Your task to perform on an android device: Open Maps and search for coffee Image 0: 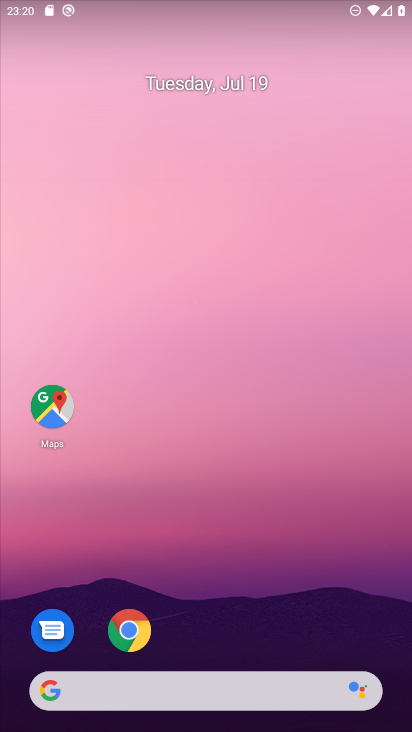
Step 0: click (49, 403)
Your task to perform on an android device: Open Maps and search for coffee Image 1: 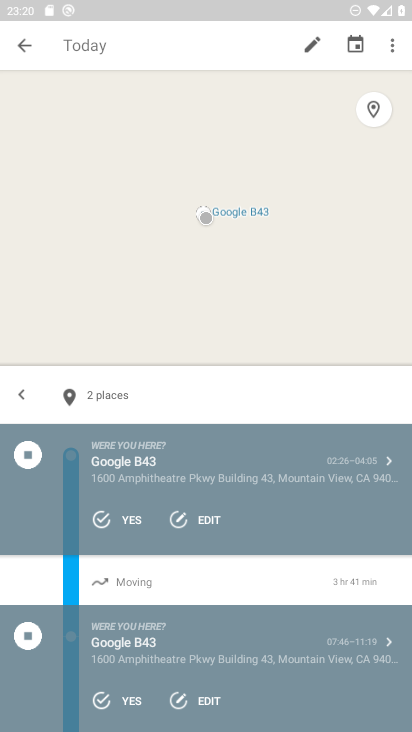
Step 1: click (19, 45)
Your task to perform on an android device: Open Maps and search for coffee Image 2: 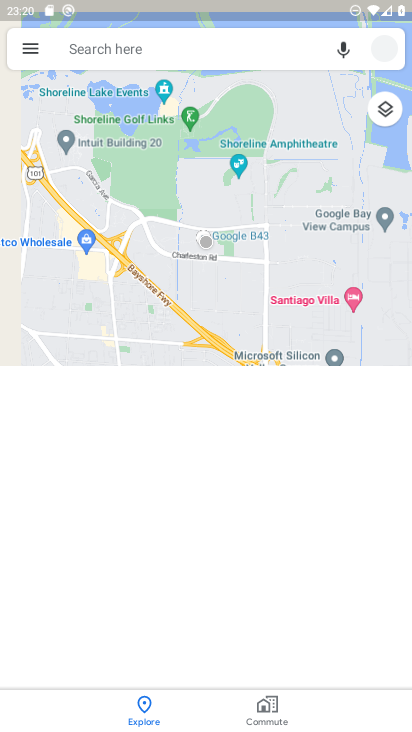
Step 2: click (191, 45)
Your task to perform on an android device: Open Maps and search for coffee Image 3: 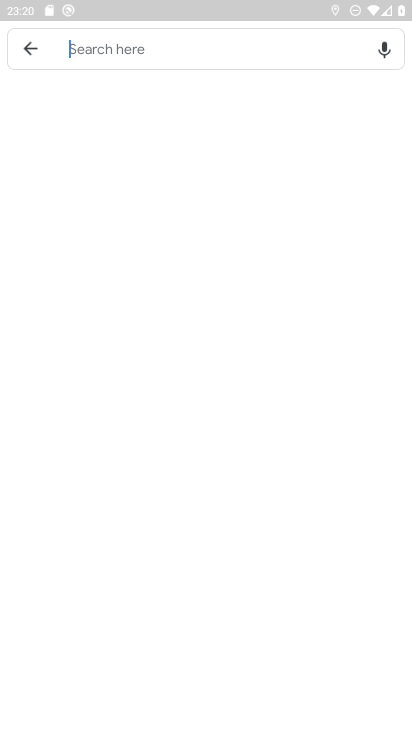
Step 3: click (167, 46)
Your task to perform on an android device: Open Maps and search for coffee Image 4: 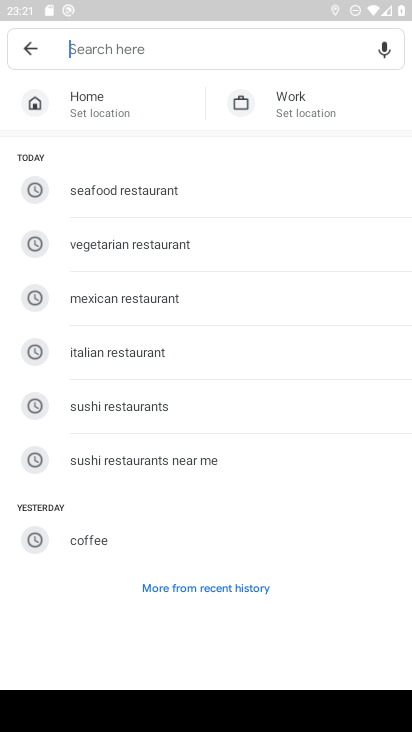
Step 4: type "coffee"
Your task to perform on an android device: Open Maps and search for coffee Image 5: 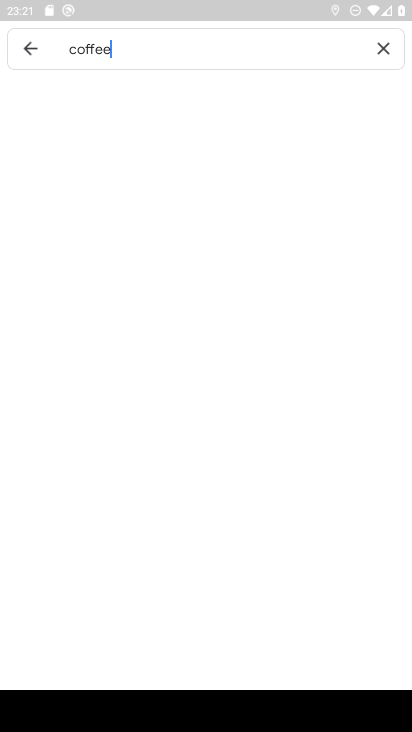
Step 5: type ""
Your task to perform on an android device: Open Maps and search for coffee Image 6: 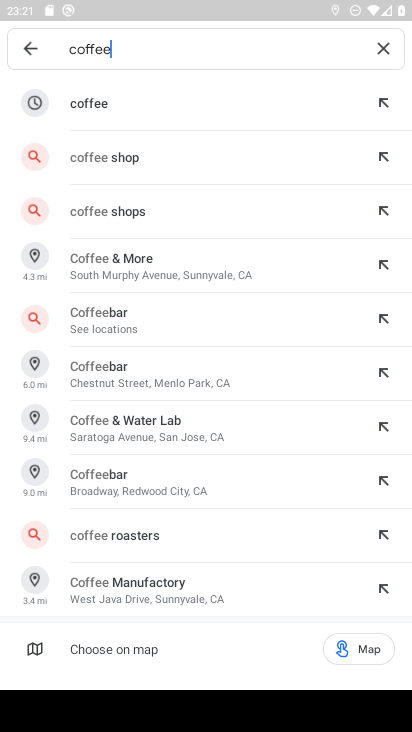
Step 6: click (120, 106)
Your task to perform on an android device: Open Maps and search for coffee Image 7: 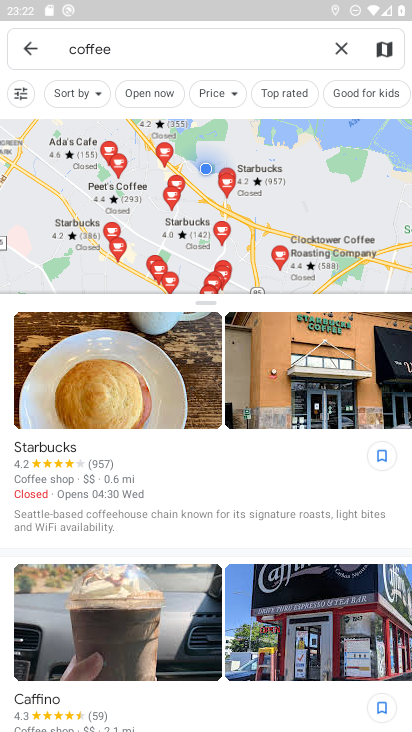
Step 7: task complete